Your task to perform on an android device: Open Google Maps Image 0: 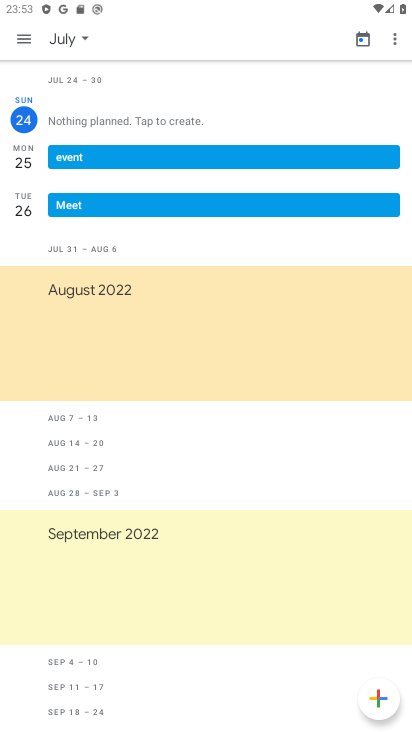
Step 0: press home button
Your task to perform on an android device: Open Google Maps Image 1: 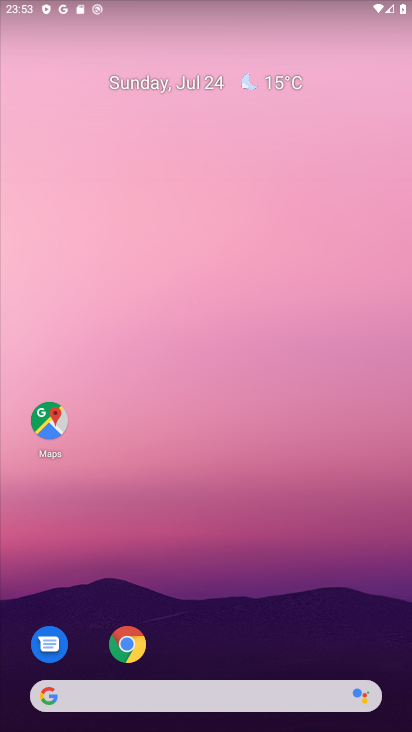
Step 1: drag from (202, 549) to (199, 215)
Your task to perform on an android device: Open Google Maps Image 2: 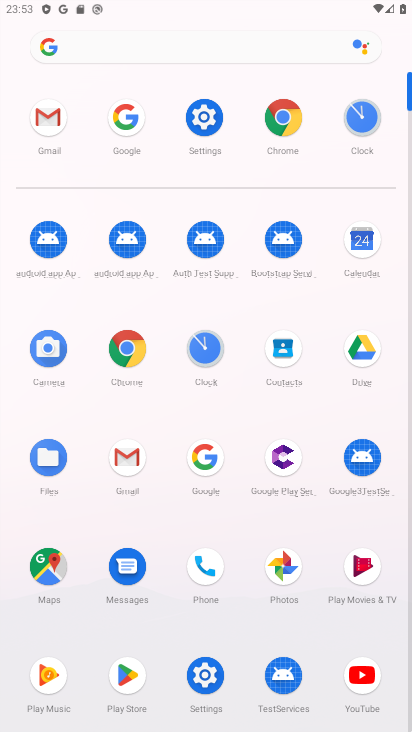
Step 2: click (49, 563)
Your task to perform on an android device: Open Google Maps Image 3: 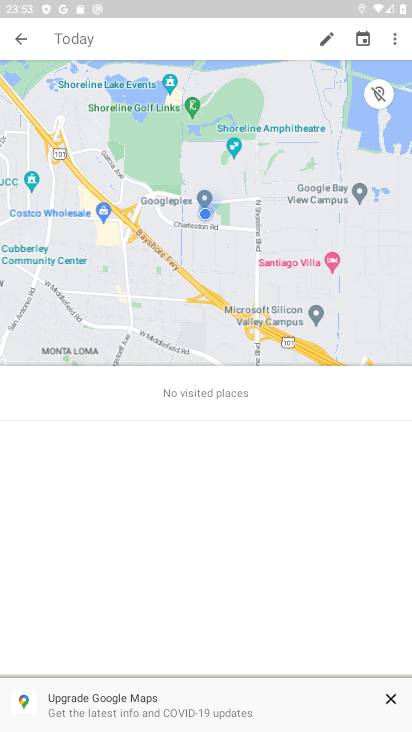
Step 3: task complete